Your task to perform on an android device: turn off picture-in-picture Image 0: 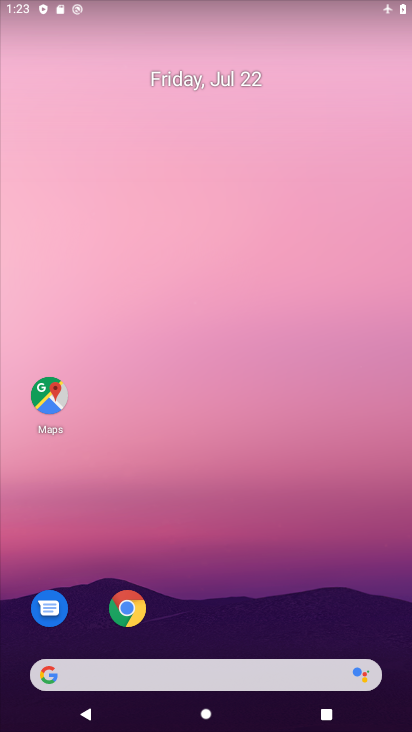
Step 0: drag from (164, 720) to (165, 248)
Your task to perform on an android device: turn off picture-in-picture Image 1: 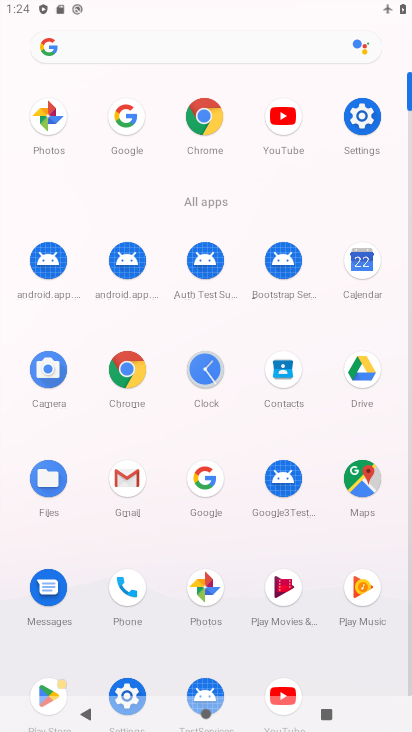
Step 1: click (365, 114)
Your task to perform on an android device: turn off picture-in-picture Image 2: 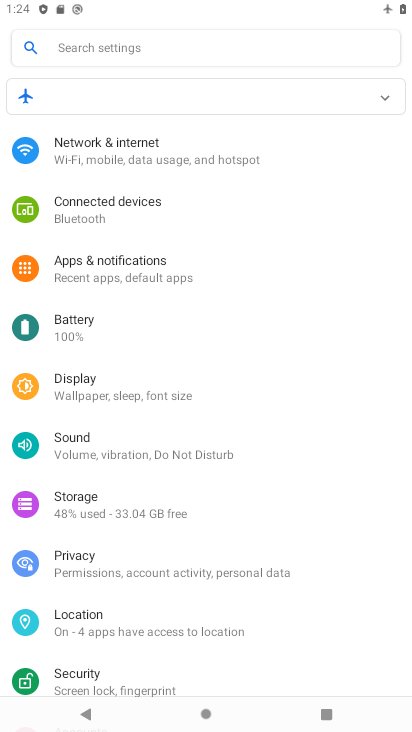
Step 2: click (91, 268)
Your task to perform on an android device: turn off picture-in-picture Image 3: 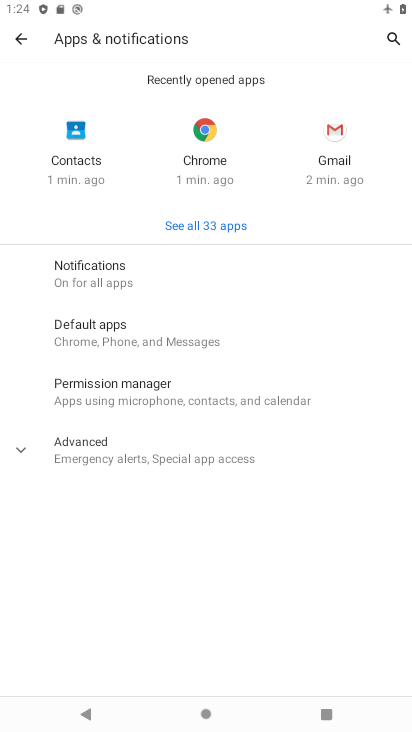
Step 3: click (68, 443)
Your task to perform on an android device: turn off picture-in-picture Image 4: 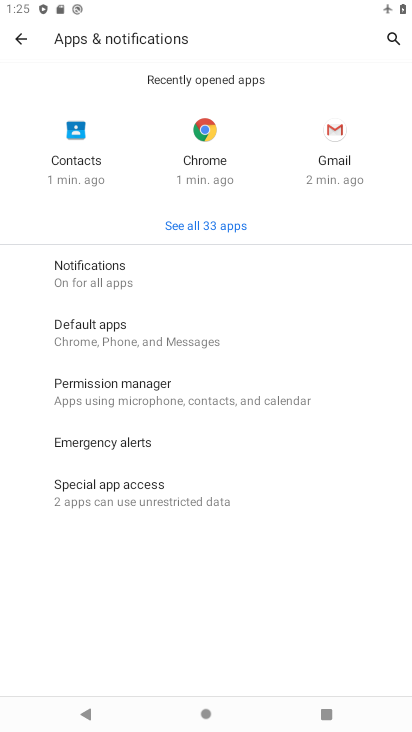
Step 4: click (112, 496)
Your task to perform on an android device: turn off picture-in-picture Image 5: 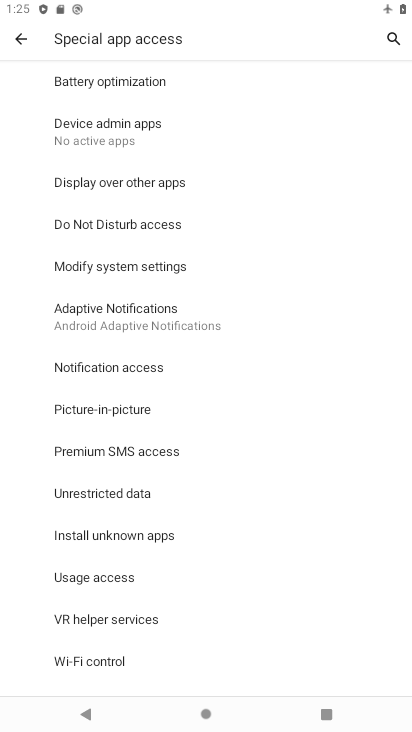
Step 5: click (97, 407)
Your task to perform on an android device: turn off picture-in-picture Image 6: 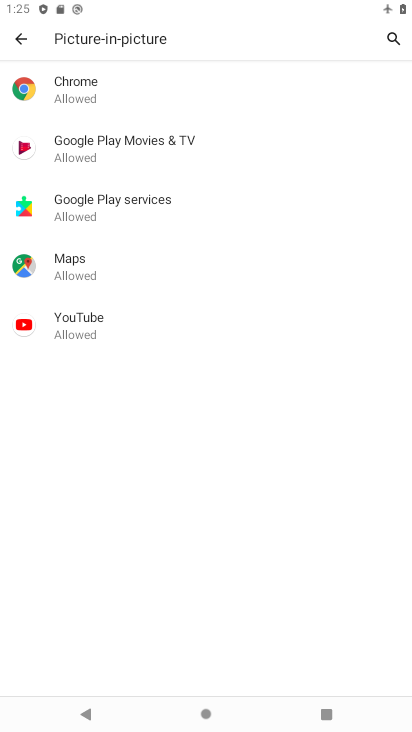
Step 6: click (73, 330)
Your task to perform on an android device: turn off picture-in-picture Image 7: 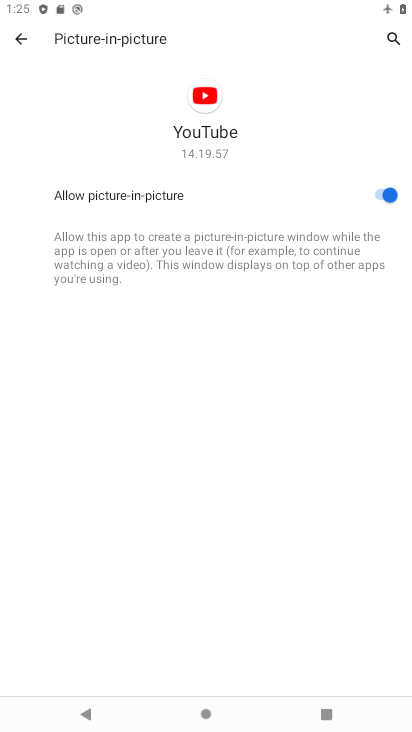
Step 7: click (382, 195)
Your task to perform on an android device: turn off picture-in-picture Image 8: 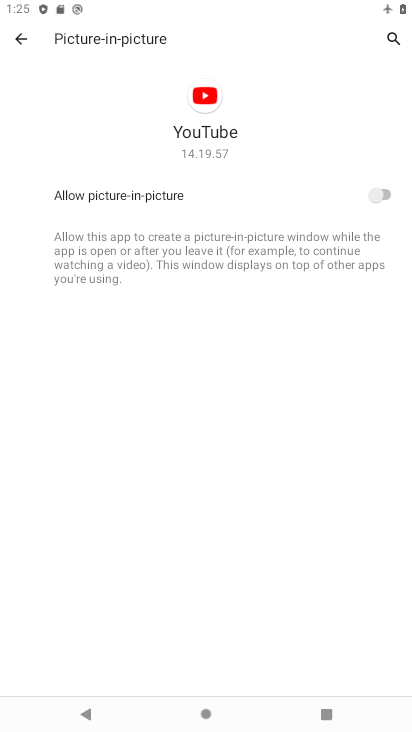
Step 8: task complete